Your task to perform on an android device: Open Yahoo.com Image 0: 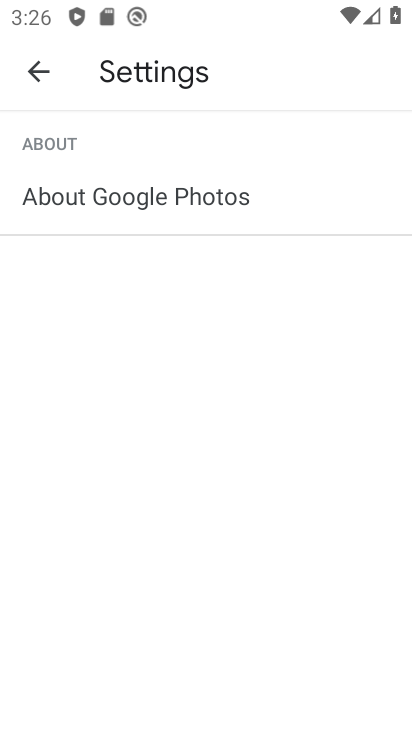
Step 0: press home button
Your task to perform on an android device: Open Yahoo.com Image 1: 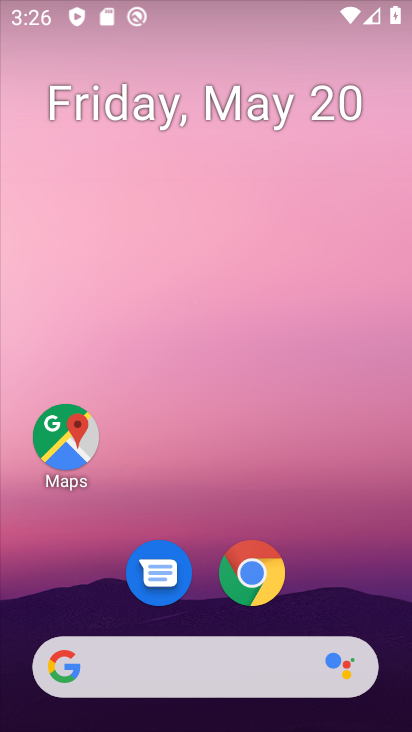
Step 1: drag from (333, 551) to (340, 107)
Your task to perform on an android device: Open Yahoo.com Image 2: 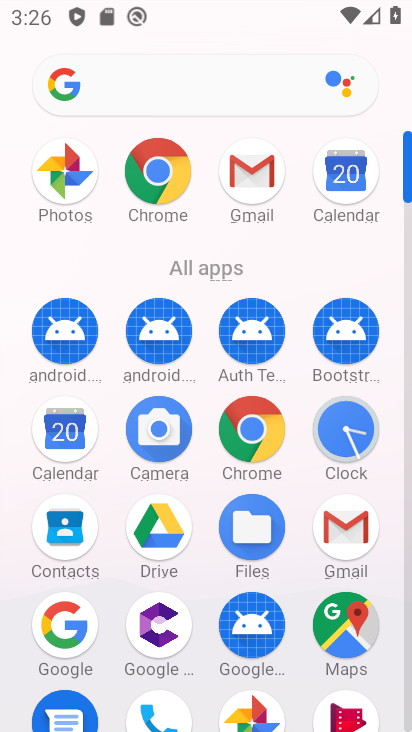
Step 2: drag from (198, 552) to (239, 274)
Your task to perform on an android device: Open Yahoo.com Image 3: 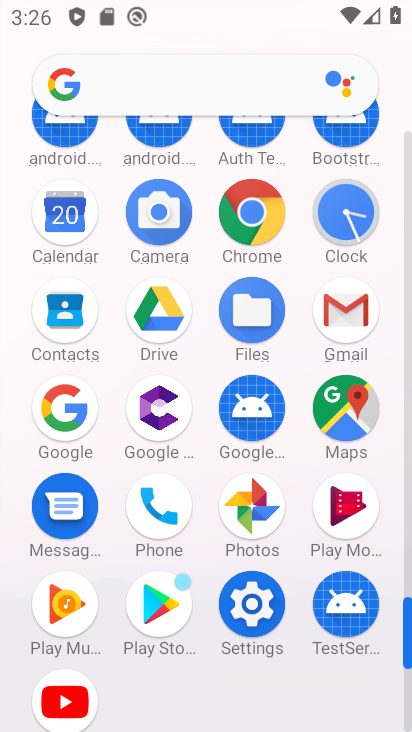
Step 3: click (271, 216)
Your task to perform on an android device: Open Yahoo.com Image 4: 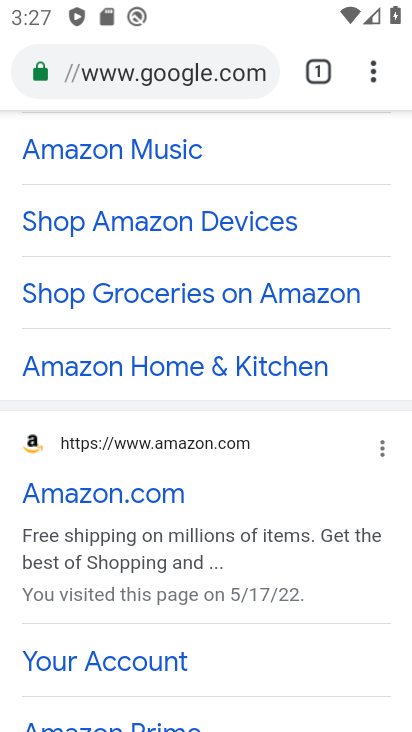
Step 4: click (173, 78)
Your task to perform on an android device: Open Yahoo.com Image 5: 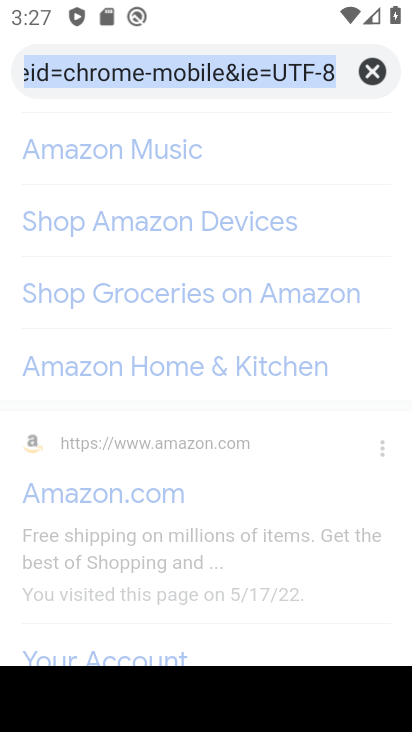
Step 5: click (377, 70)
Your task to perform on an android device: Open Yahoo.com Image 6: 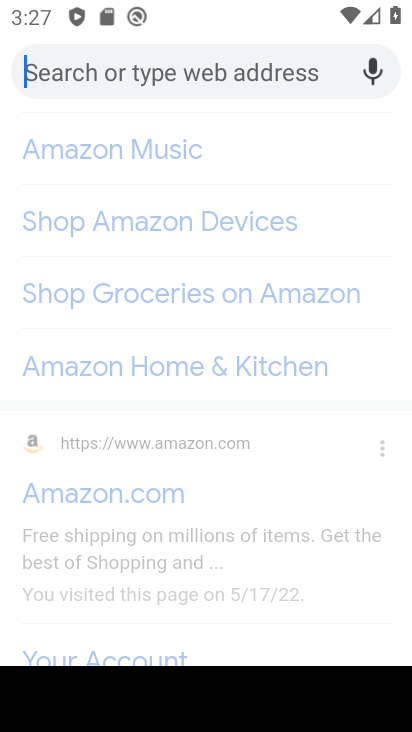
Step 6: type "yahoo.com"
Your task to perform on an android device: Open Yahoo.com Image 7: 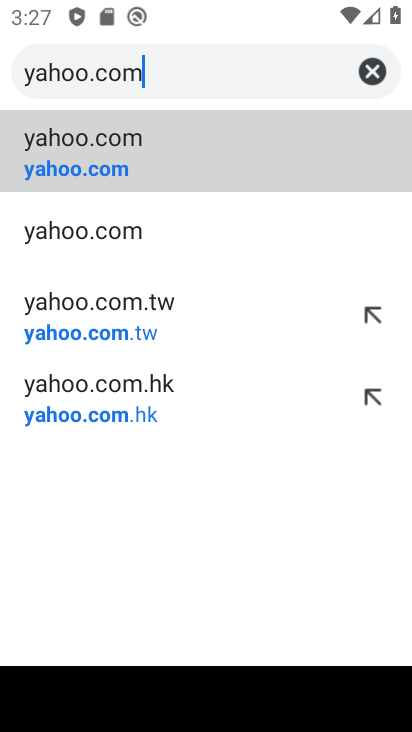
Step 7: click (82, 167)
Your task to perform on an android device: Open Yahoo.com Image 8: 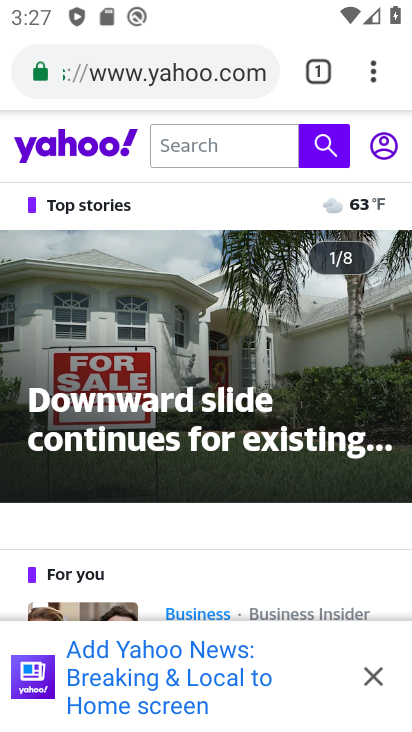
Step 8: task complete